Your task to perform on an android device: find which apps use the phone's location Image 0: 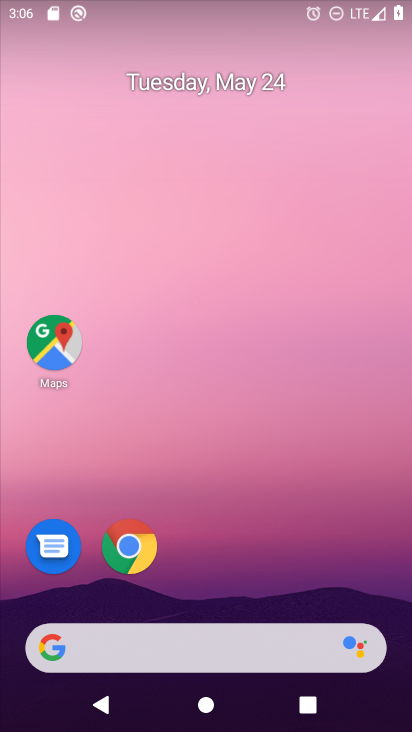
Step 0: drag from (287, 642) to (357, 9)
Your task to perform on an android device: find which apps use the phone's location Image 1: 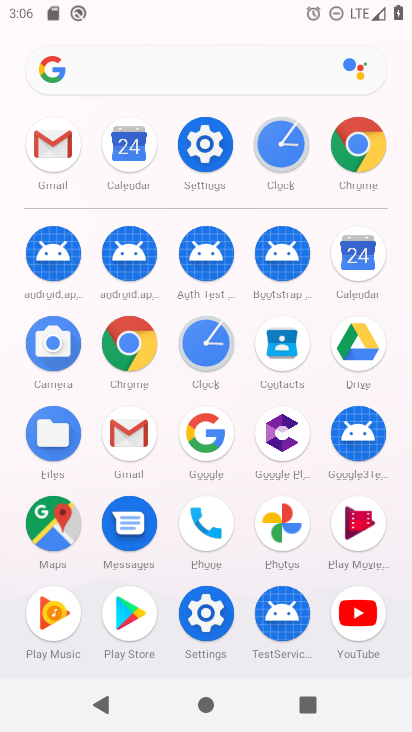
Step 1: click (213, 139)
Your task to perform on an android device: find which apps use the phone's location Image 2: 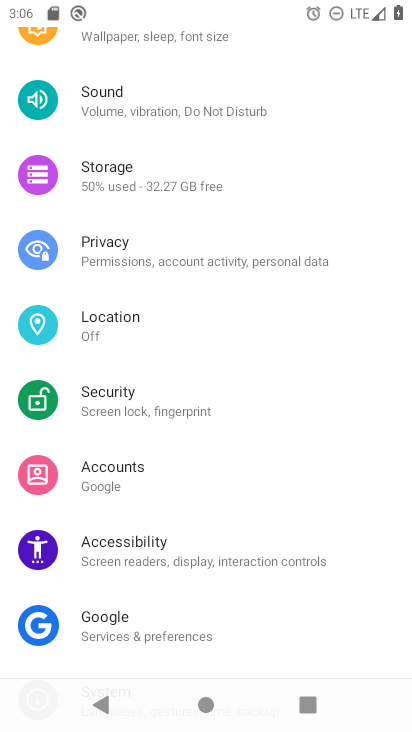
Step 2: click (198, 317)
Your task to perform on an android device: find which apps use the phone's location Image 3: 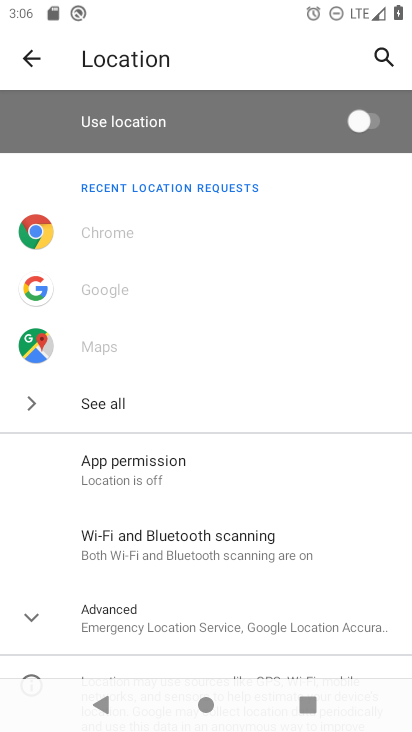
Step 3: click (161, 463)
Your task to perform on an android device: find which apps use the phone's location Image 4: 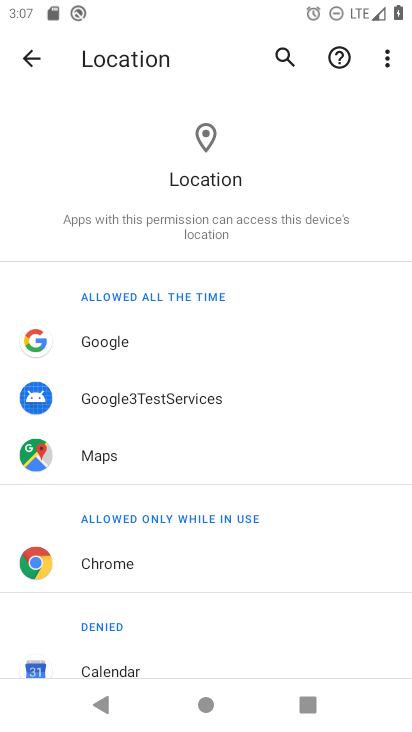
Step 4: task complete